Your task to perform on an android device: View the shopping cart on walmart. Image 0: 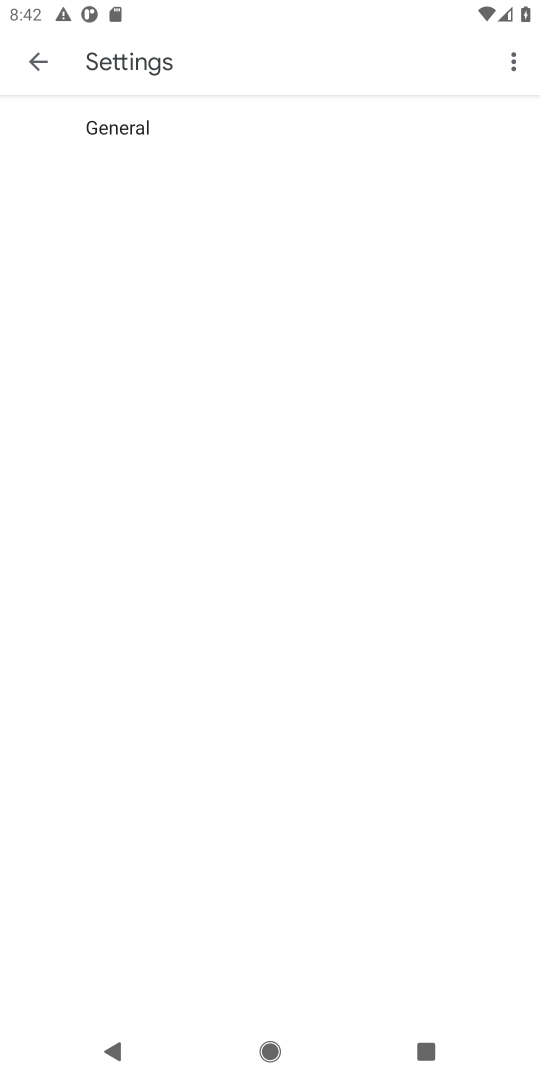
Step 0: press home button
Your task to perform on an android device: View the shopping cart on walmart. Image 1: 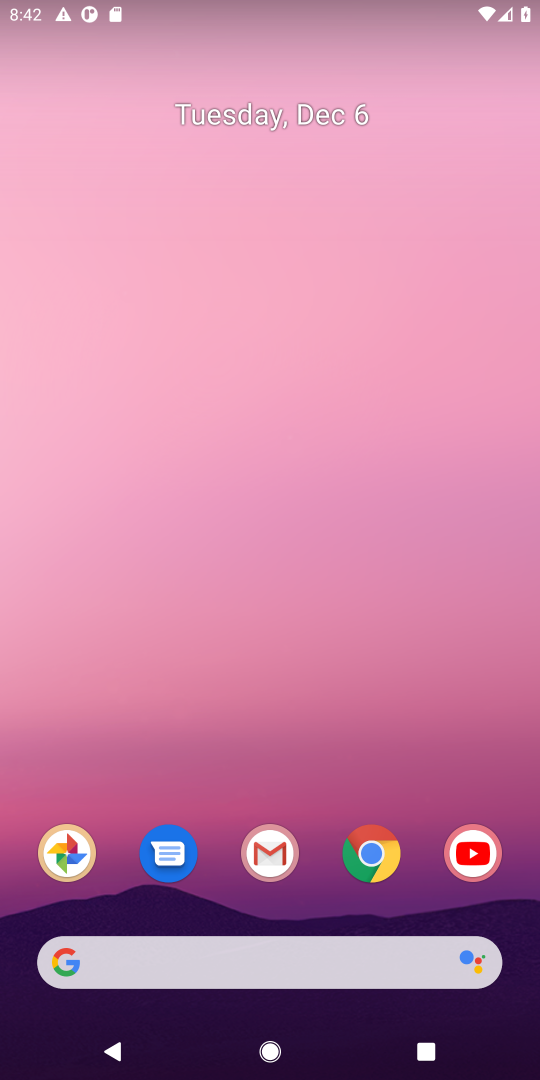
Step 1: drag from (290, 852) to (295, 260)
Your task to perform on an android device: View the shopping cart on walmart. Image 2: 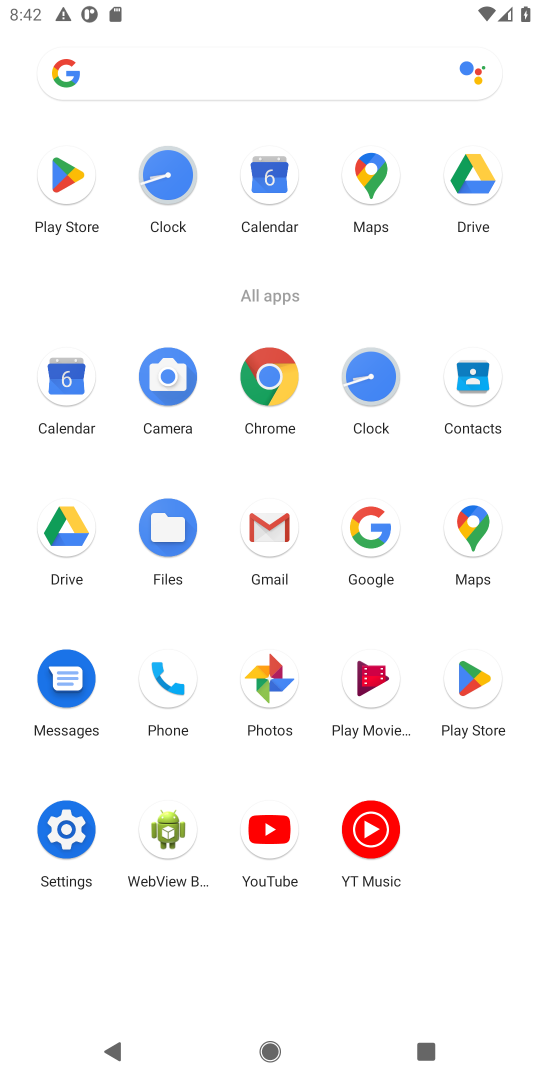
Step 2: click (368, 530)
Your task to perform on an android device: View the shopping cart on walmart. Image 3: 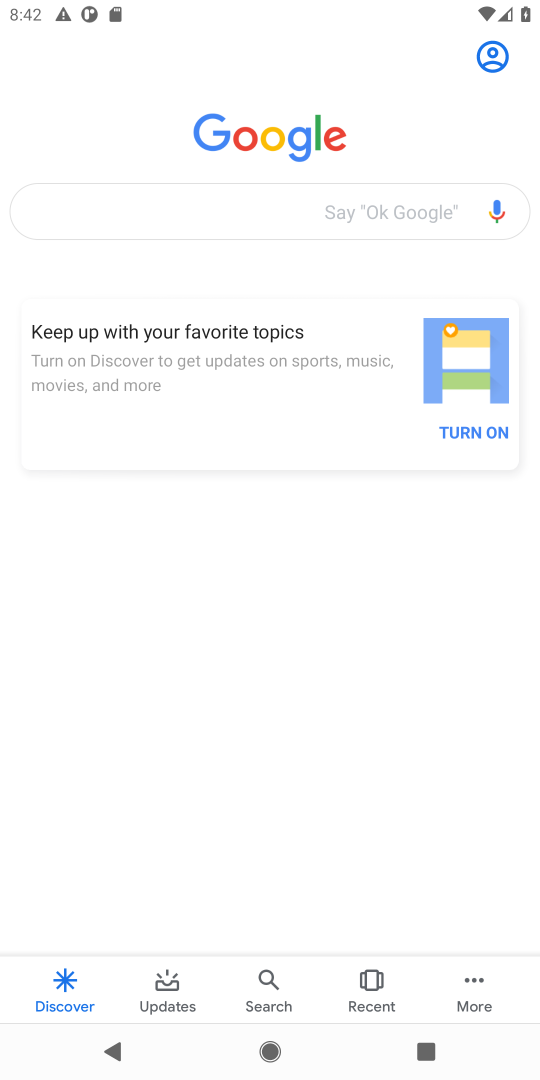
Step 3: click (125, 210)
Your task to perform on an android device: View the shopping cart on walmart. Image 4: 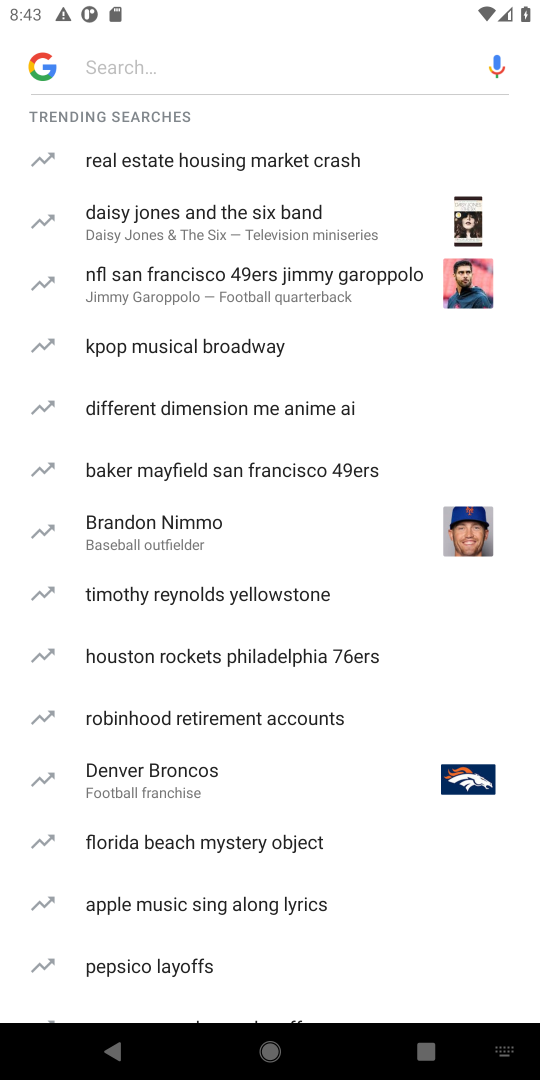
Step 4: type "walmart"
Your task to perform on an android device: View the shopping cart on walmart. Image 5: 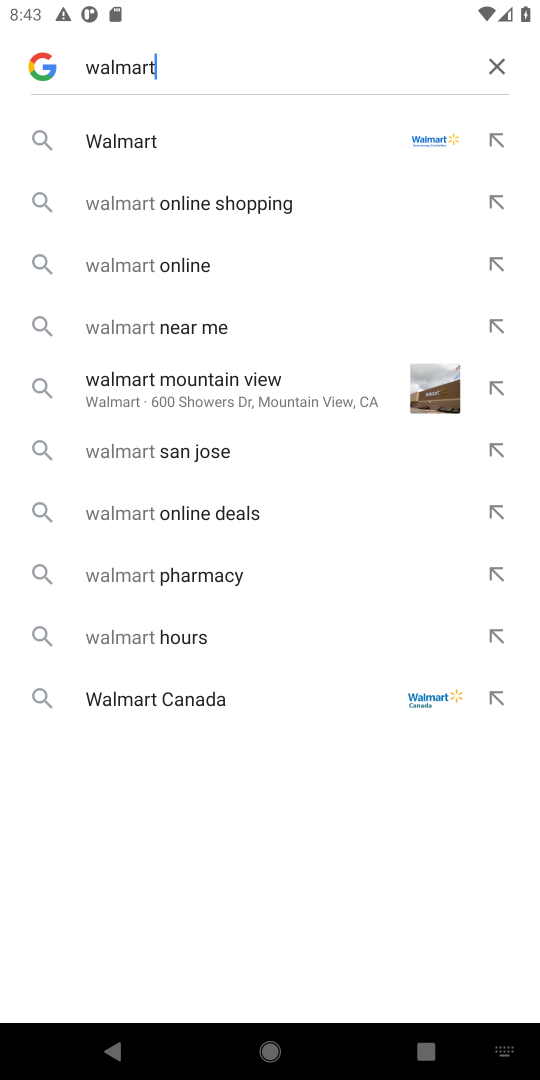
Step 5: click (429, 140)
Your task to perform on an android device: View the shopping cart on walmart. Image 6: 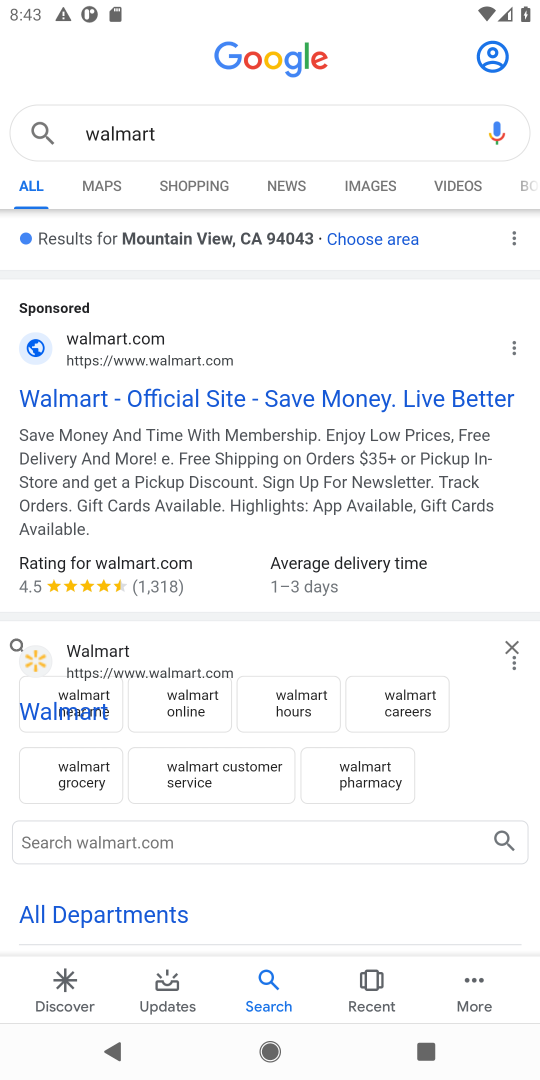
Step 6: click (248, 408)
Your task to perform on an android device: View the shopping cart on walmart. Image 7: 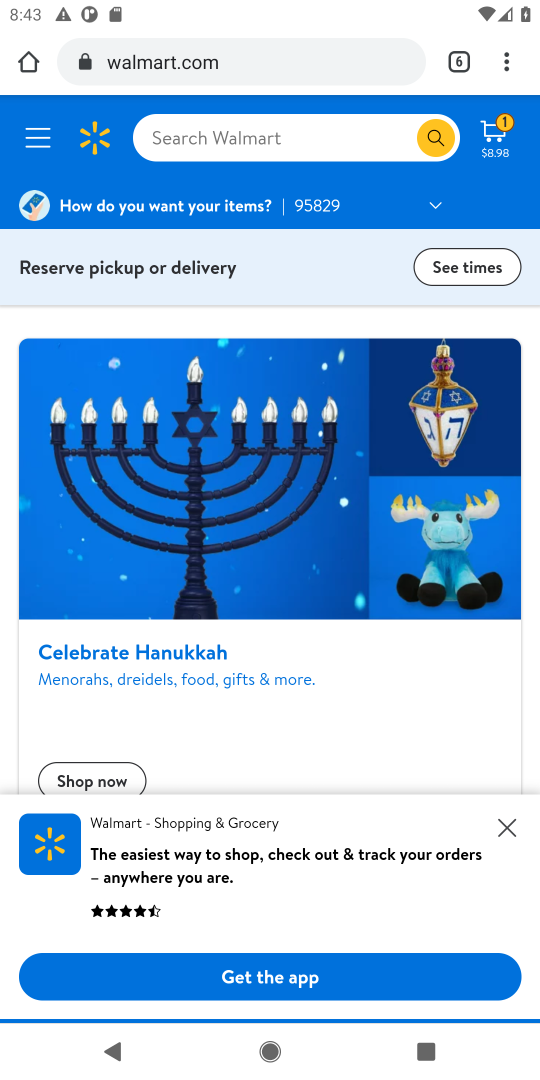
Step 7: click (504, 830)
Your task to perform on an android device: View the shopping cart on walmart. Image 8: 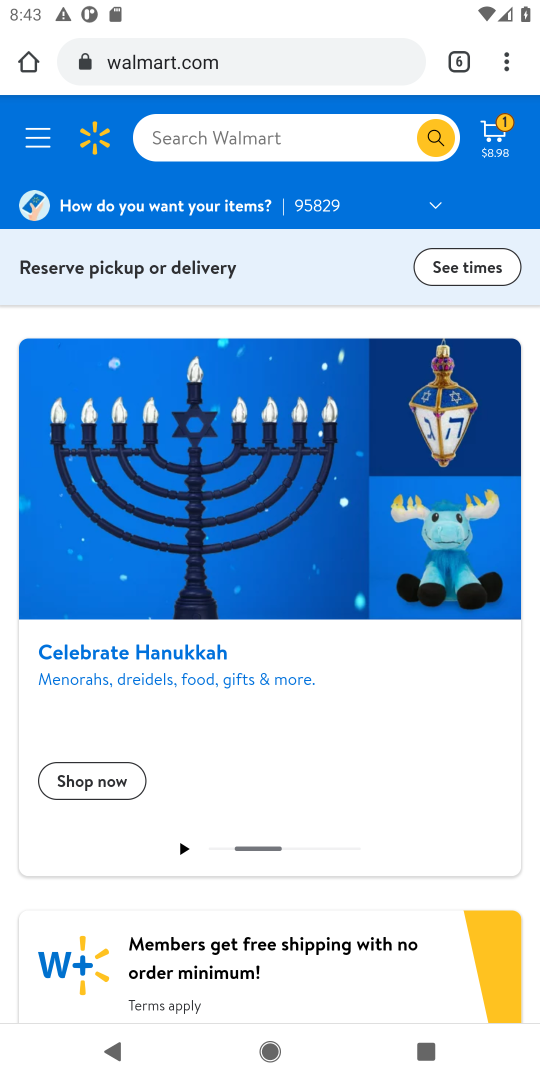
Step 8: click (485, 138)
Your task to perform on an android device: View the shopping cart on walmart. Image 9: 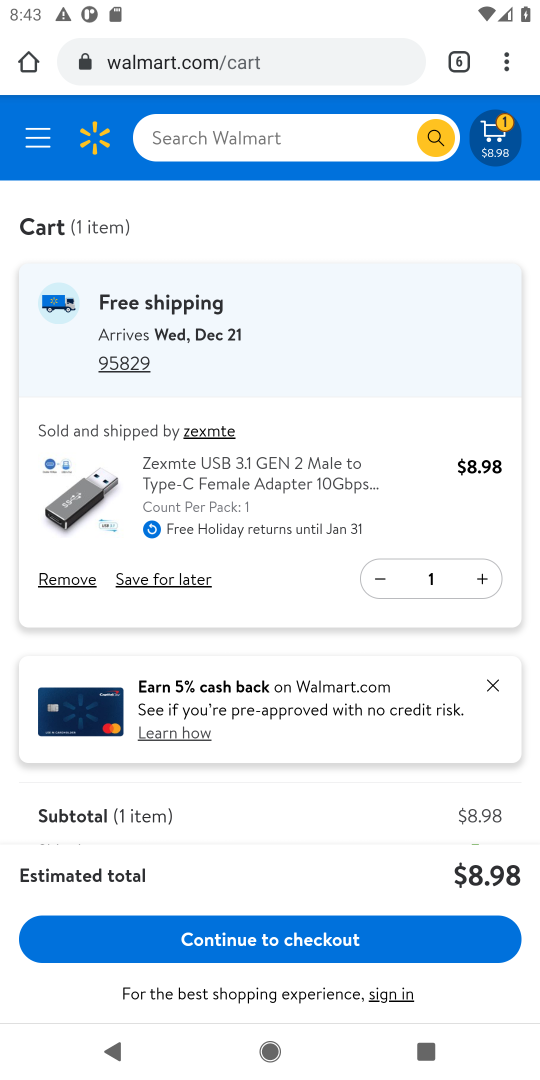
Step 9: task complete